Your task to perform on an android device: toggle location history Image 0: 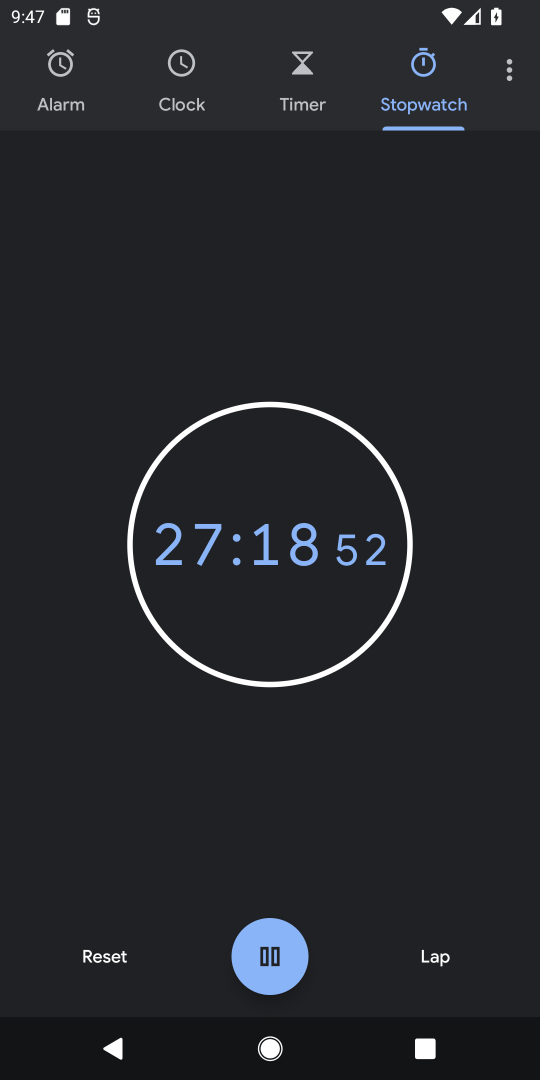
Step 0: click (101, 961)
Your task to perform on an android device: toggle location history Image 1: 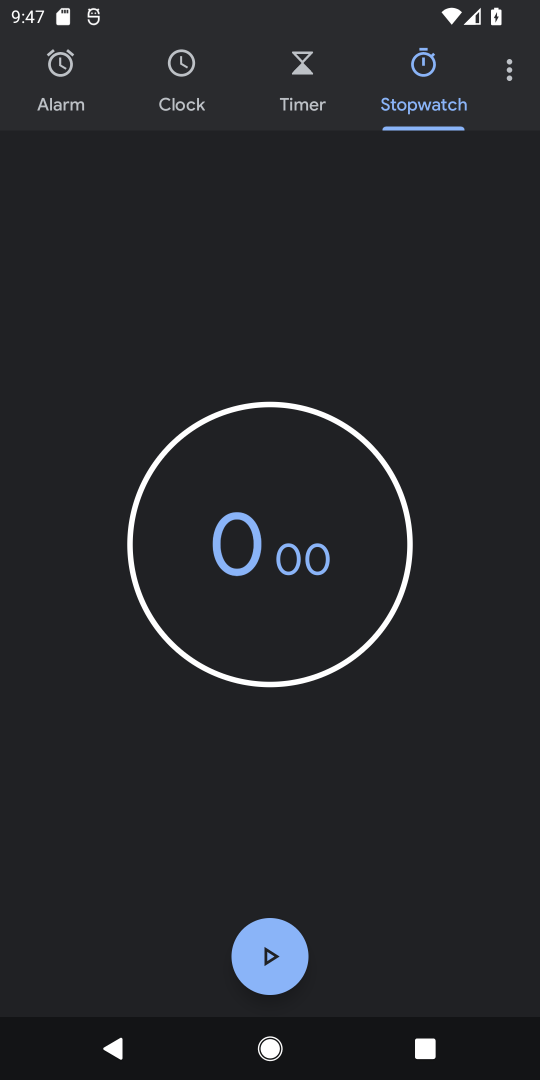
Step 1: press home button
Your task to perform on an android device: toggle location history Image 2: 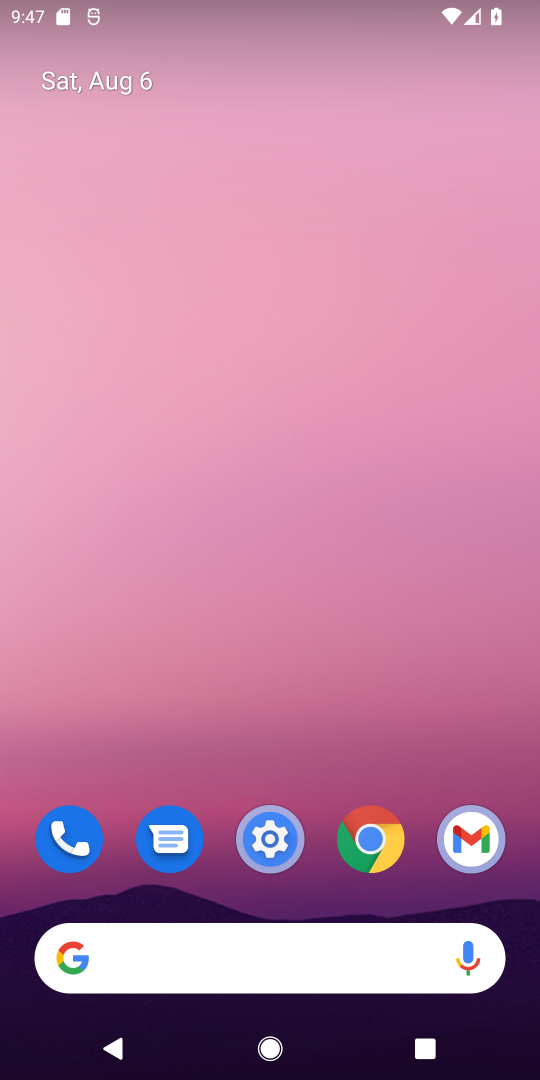
Step 2: click (273, 831)
Your task to perform on an android device: toggle location history Image 3: 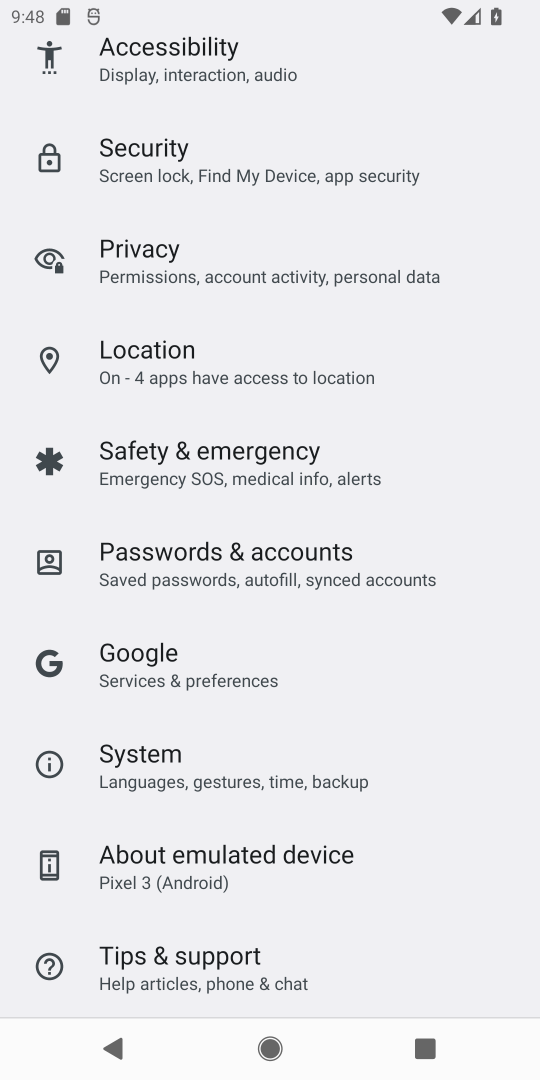
Step 3: drag from (208, 229) to (200, 483)
Your task to perform on an android device: toggle location history Image 4: 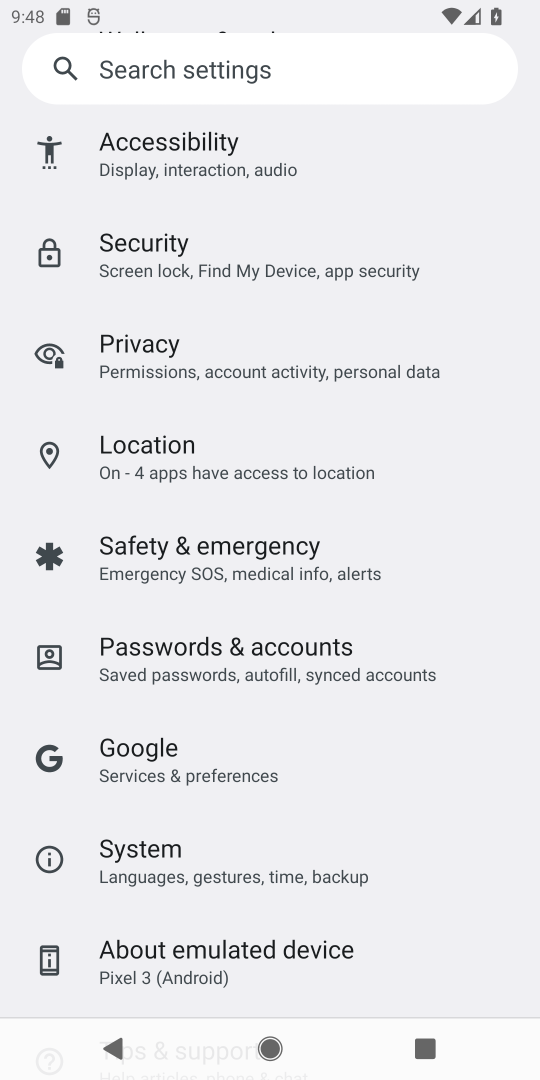
Step 4: click (187, 454)
Your task to perform on an android device: toggle location history Image 5: 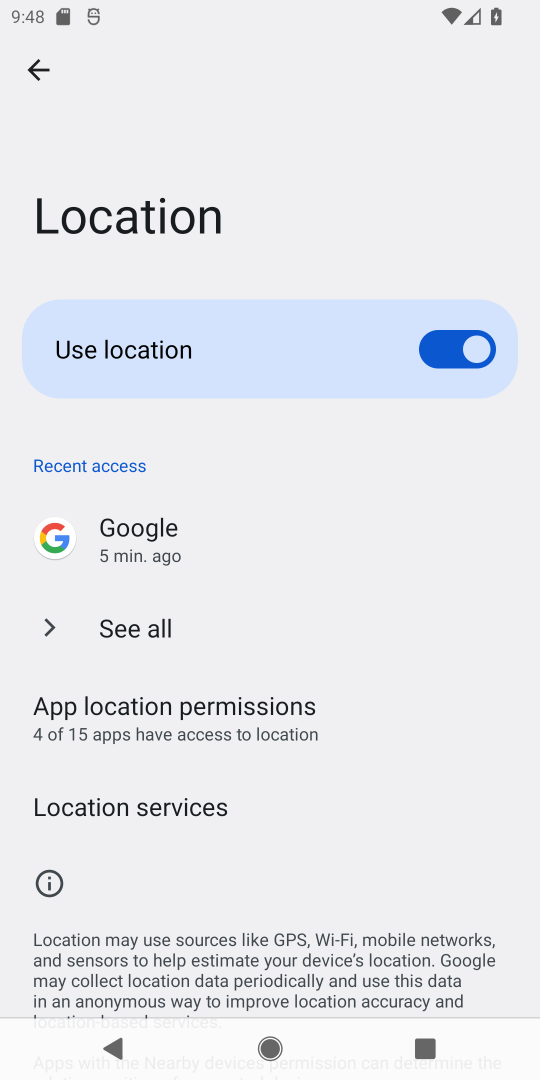
Step 5: click (146, 802)
Your task to perform on an android device: toggle location history Image 6: 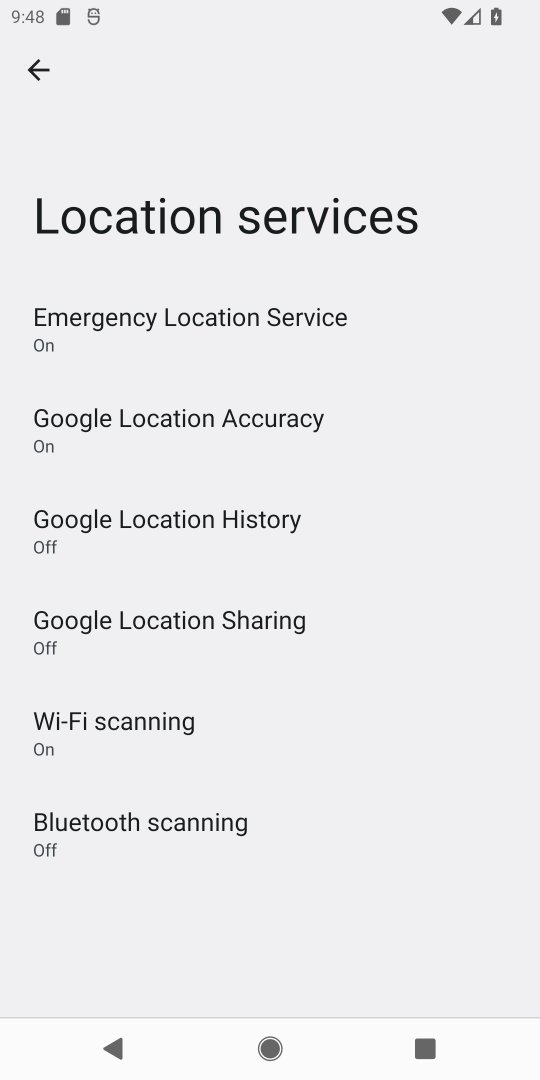
Step 6: click (301, 526)
Your task to perform on an android device: toggle location history Image 7: 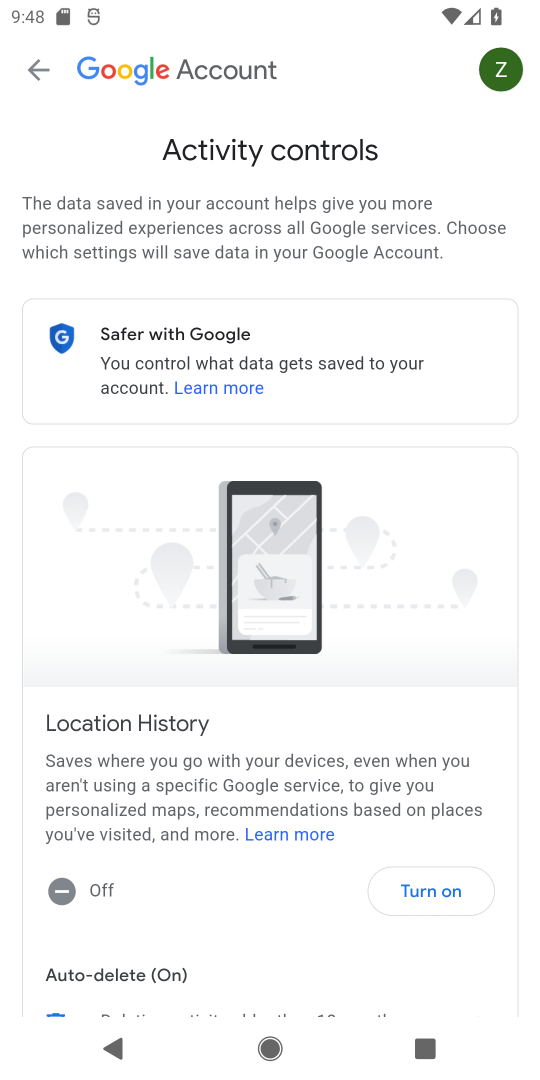
Step 7: click (433, 878)
Your task to perform on an android device: toggle location history Image 8: 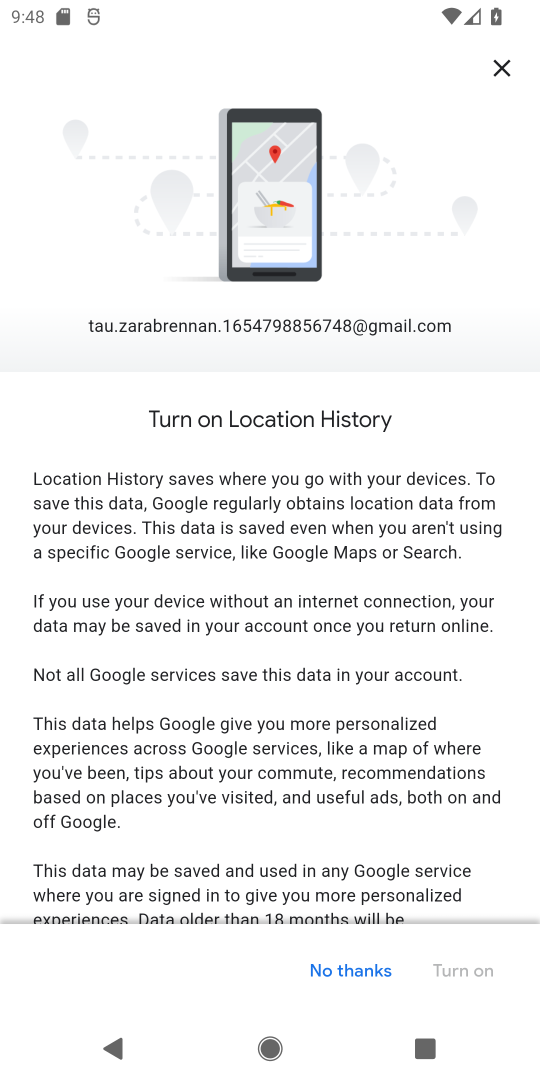
Step 8: drag from (358, 885) to (417, 292)
Your task to perform on an android device: toggle location history Image 9: 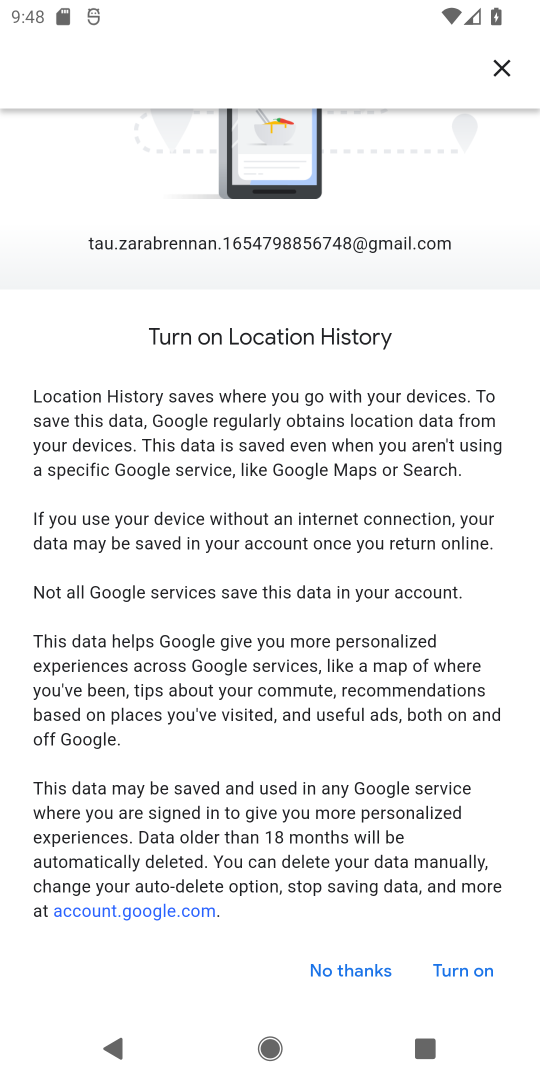
Step 9: drag from (329, 840) to (404, 177)
Your task to perform on an android device: toggle location history Image 10: 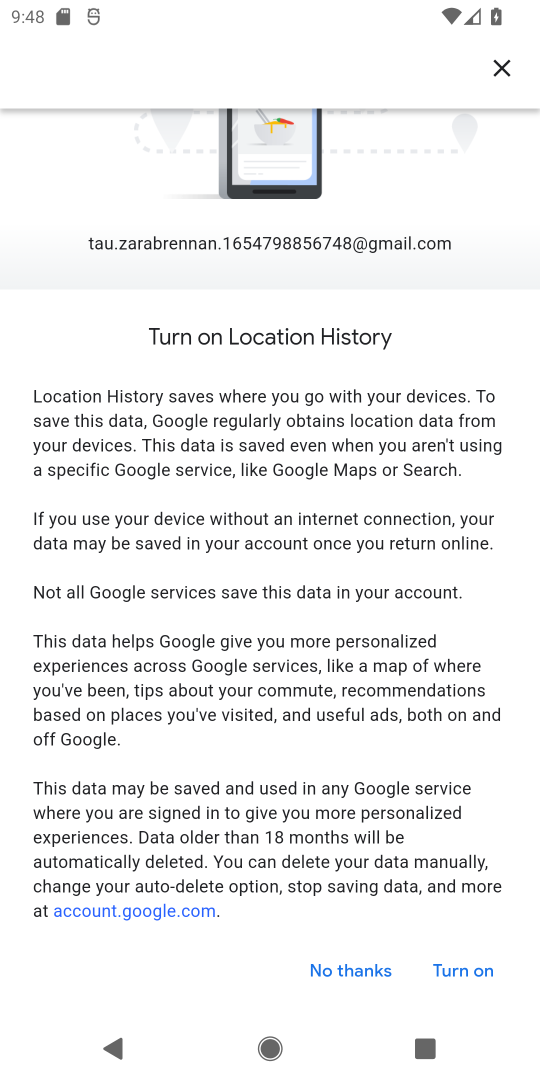
Step 10: drag from (323, 828) to (368, 485)
Your task to perform on an android device: toggle location history Image 11: 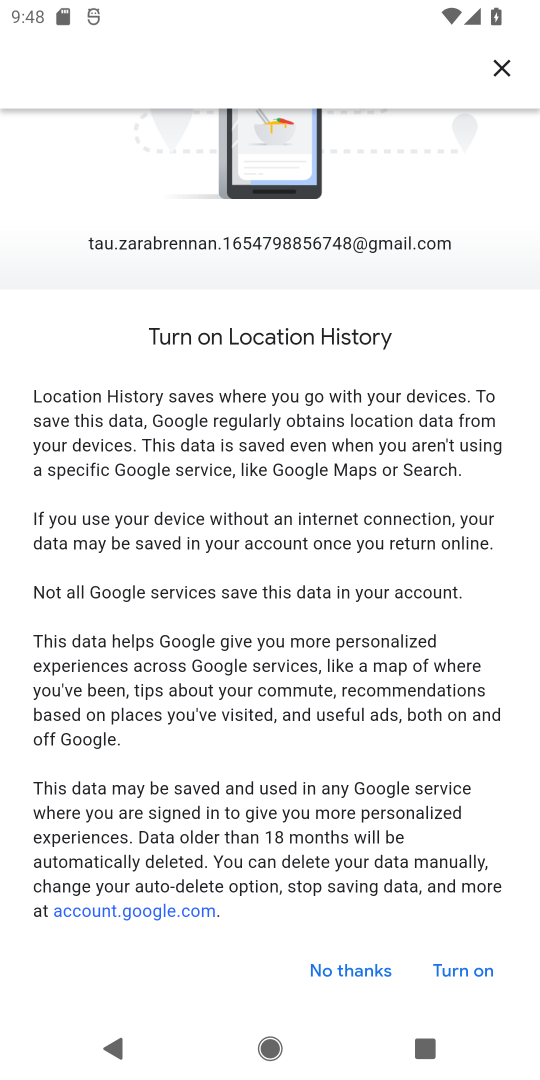
Step 11: click (459, 962)
Your task to perform on an android device: toggle location history Image 12: 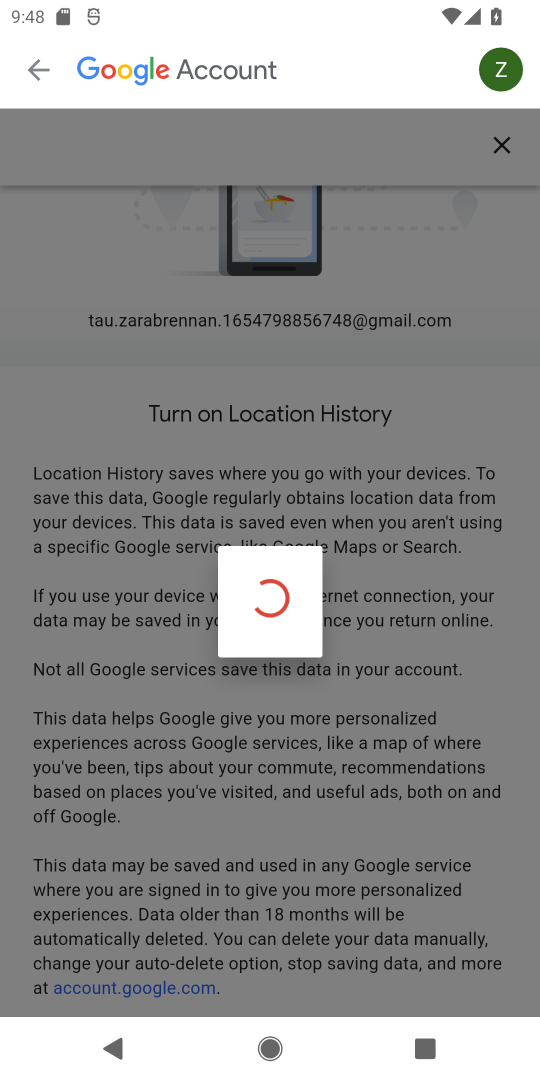
Step 12: task complete